Your task to perform on an android device: Open ESPN.com Image 0: 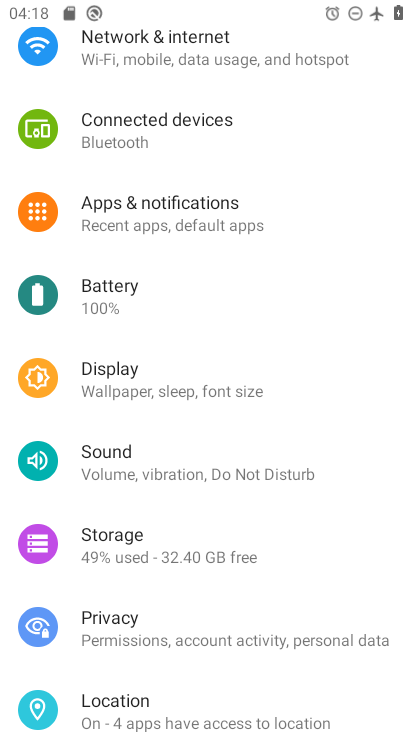
Step 0: press home button
Your task to perform on an android device: Open ESPN.com Image 1: 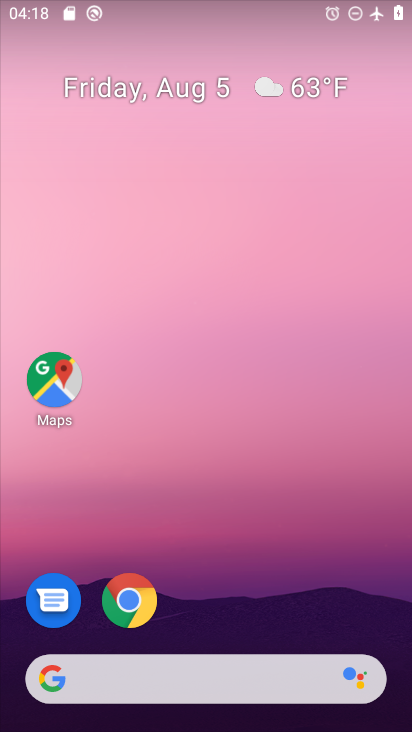
Step 1: click (128, 597)
Your task to perform on an android device: Open ESPN.com Image 2: 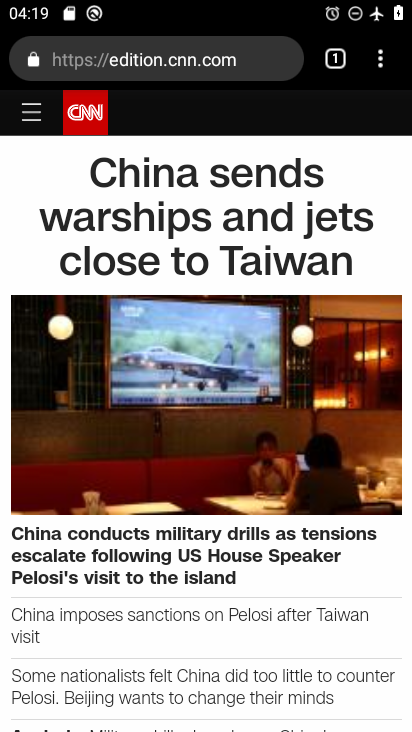
Step 2: click (267, 65)
Your task to perform on an android device: Open ESPN.com Image 3: 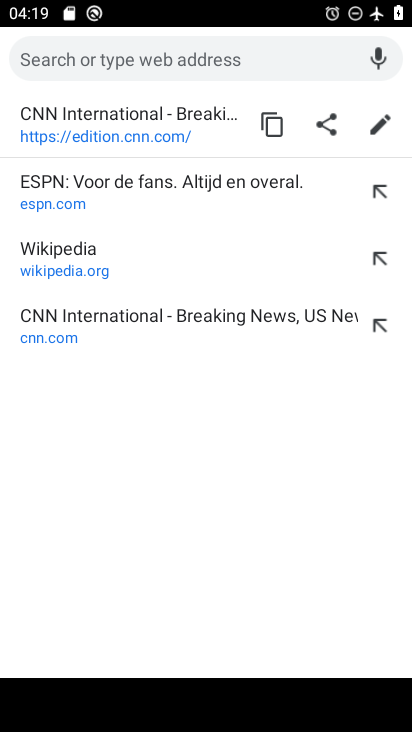
Step 3: click (200, 185)
Your task to perform on an android device: Open ESPN.com Image 4: 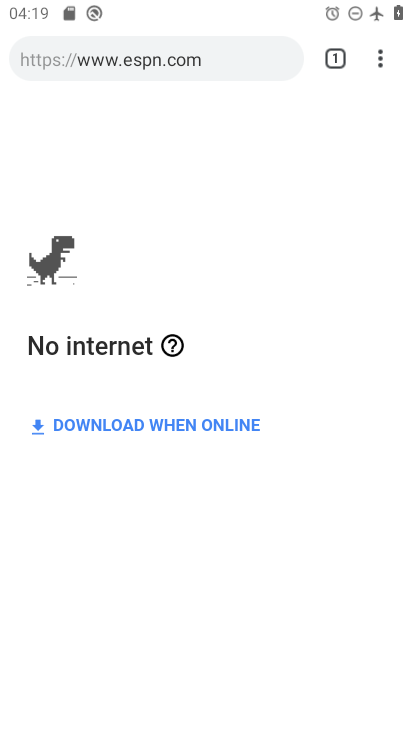
Step 4: task complete